Your task to perform on an android device: What's the weather? Image 0: 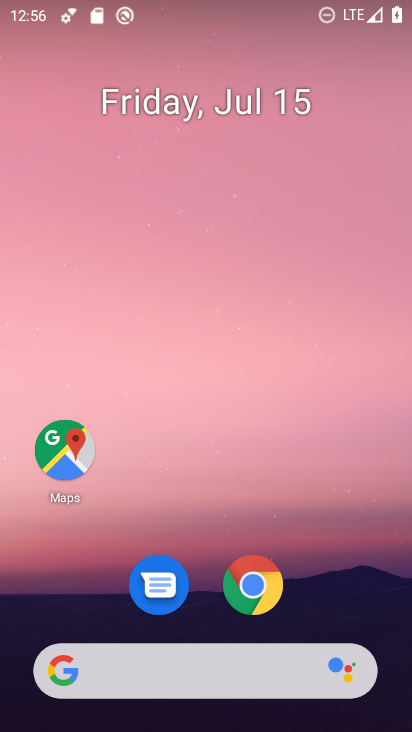
Step 0: click (191, 677)
Your task to perform on an android device: What's the weather? Image 1: 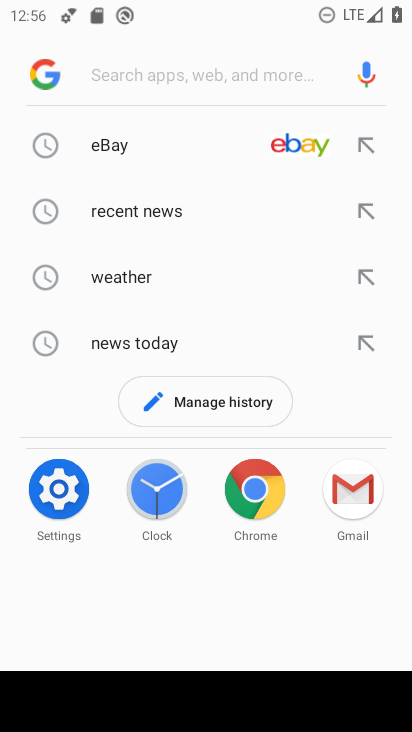
Step 1: click (106, 276)
Your task to perform on an android device: What's the weather? Image 2: 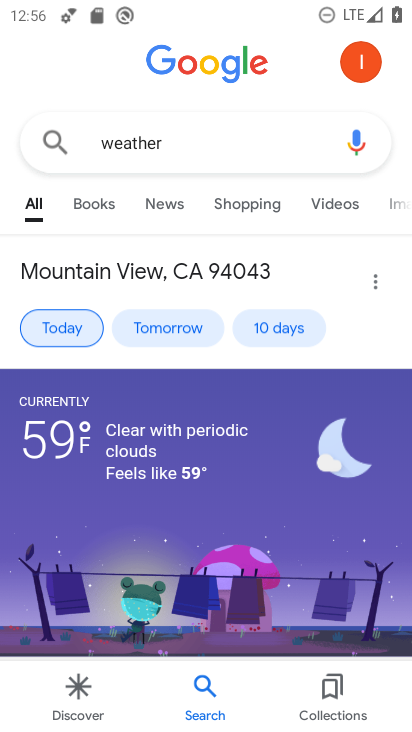
Step 2: click (75, 327)
Your task to perform on an android device: What's the weather? Image 3: 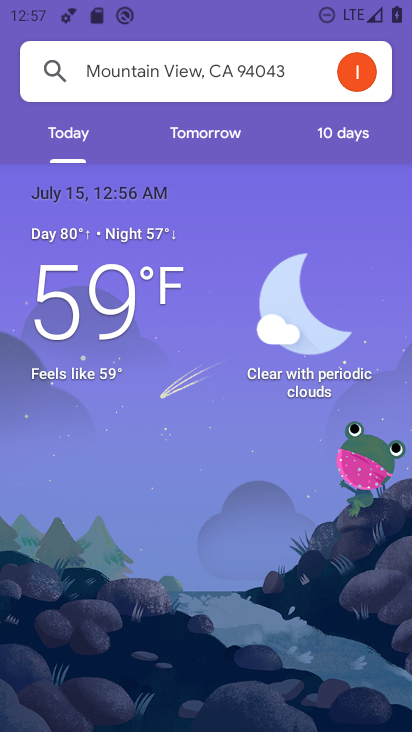
Step 3: task complete